Your task to perform on an android device: check storage Image 0: 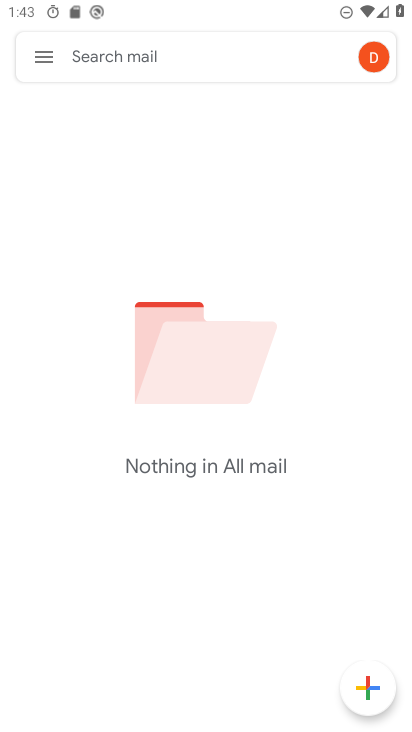
Step 0: press home button
Your task to perform on an android device: check storage Image 1: 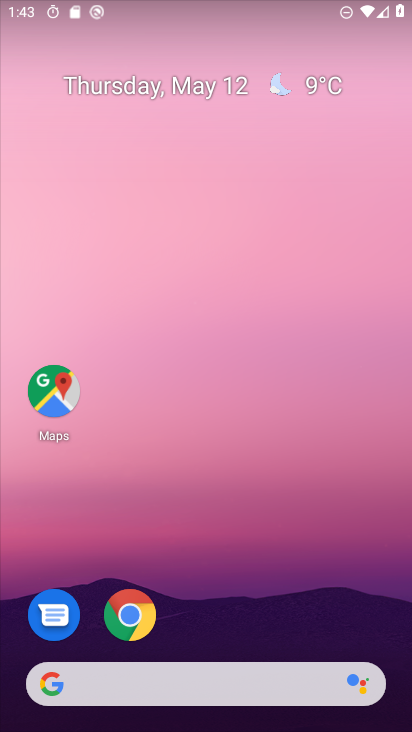
Step 1: drag from (239, 551) to (249, 78)
Your task to perform on an android device: check storage Image 2: 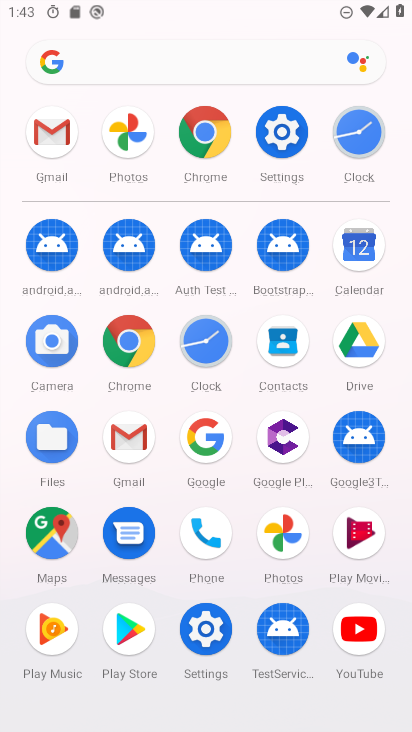
Step 2: click (272, 127)
Your task to perform on an android device: check storage Image 3: 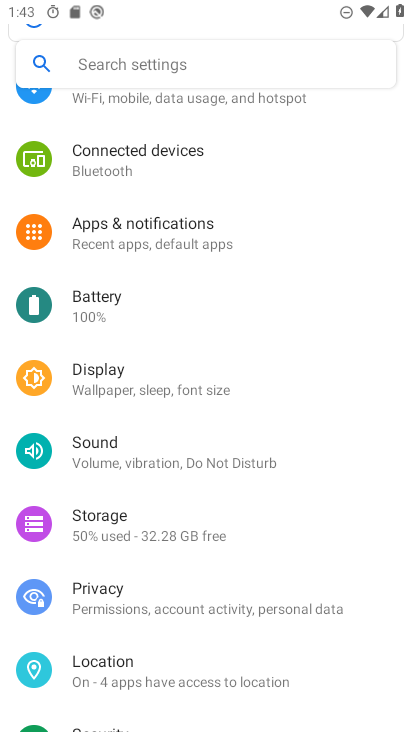
Step 3: drag from (260, 634) to (292, 443)
Your task to perform on an android device: check storage Image 4: 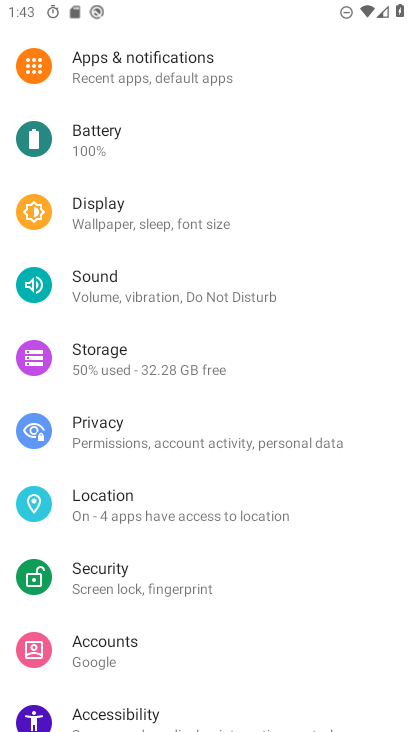
Step 4: click (166, 352)
Your task to perform on an android device: check storage Image 5: 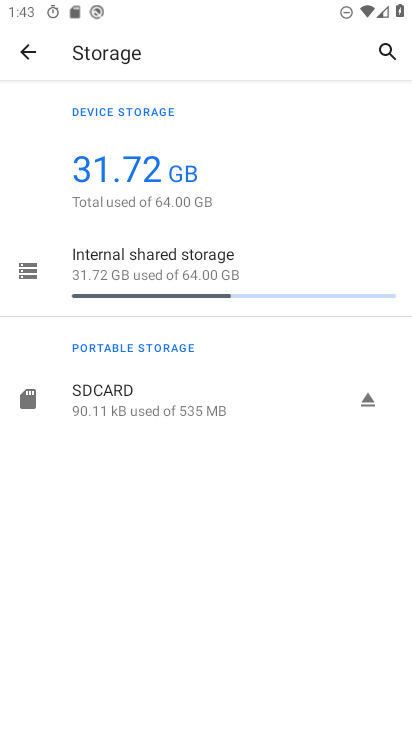
Step 5: task complete